Your task to perform on an android device: Go to Google maps Image 0: 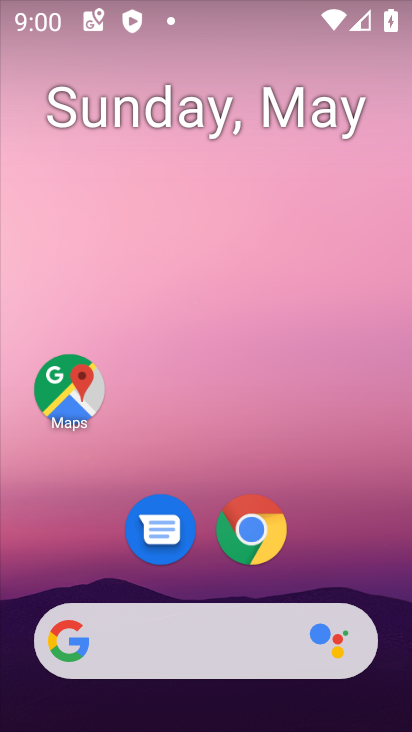
Step 0: click (76, 410)
Your task to perform on an android device: Go to Google maps Image 1: 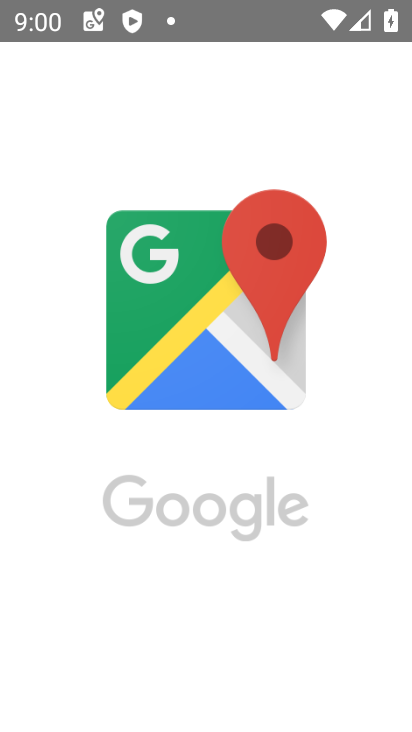
Step 1: task complete